Your task to perform on an android device: add a contact Image 0: 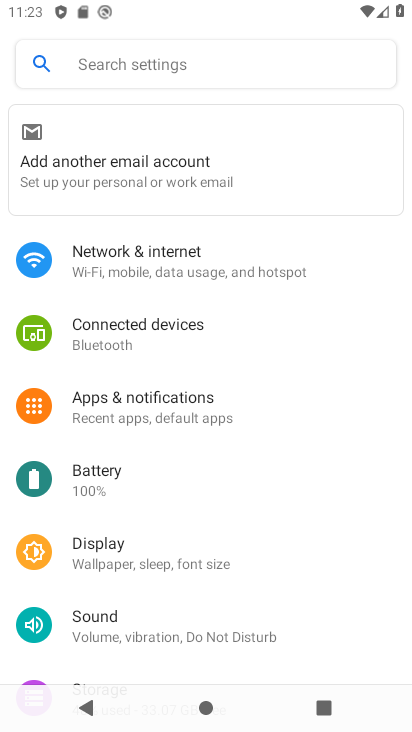
Step 0: press home button
Your task to perform on an android device: add a contact Image 1: 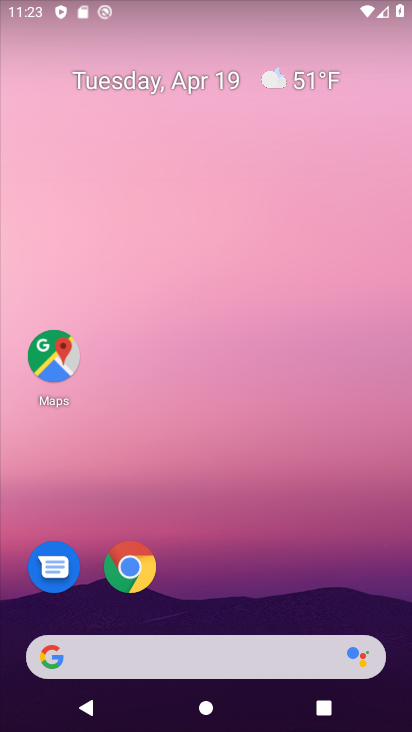
Step 1: drag from (209, 588) to (316, 0)
Your task to perform on an android device: add a contact Image 2: 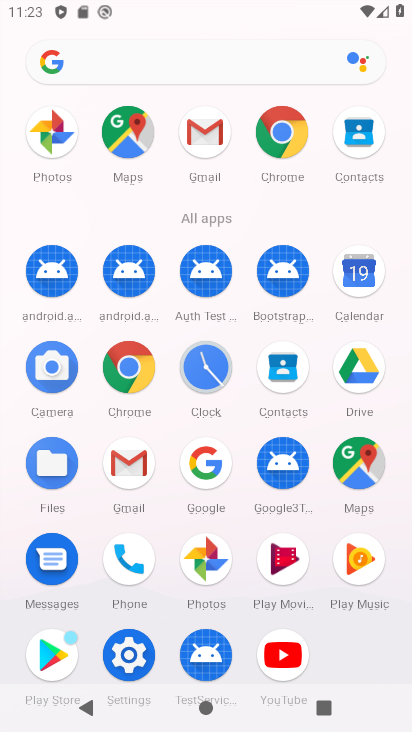
Step 2: click (284, 376)
Your task to perform on an android device: add a contact Image 3: 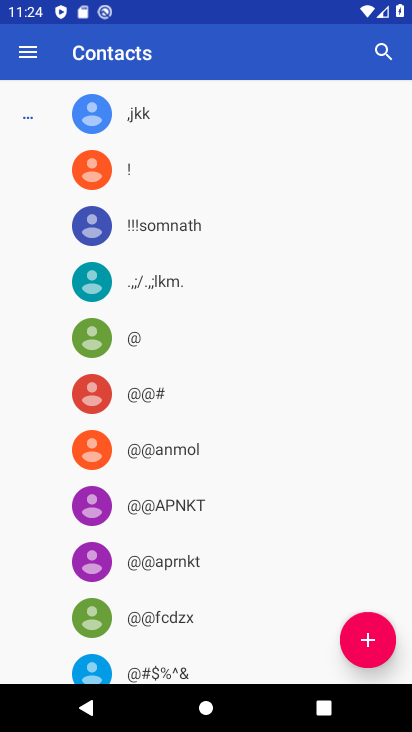
Step 3: click (364, 632)
Your task to perform on an android device: add a contact Image 4: 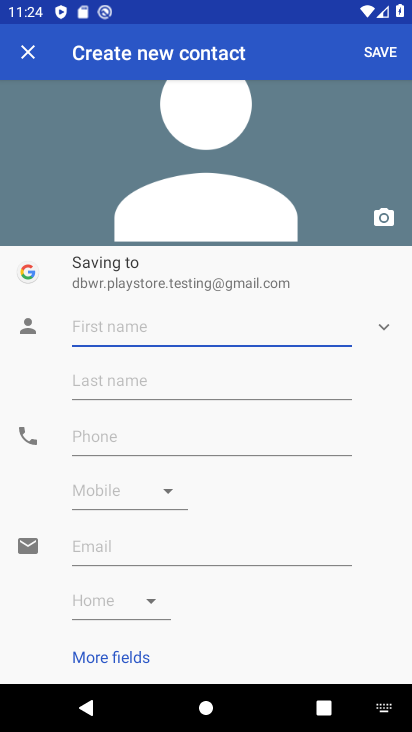
Step 4: type "avdulkeli"
Your task to perform on an android device: add a contact Image 5: 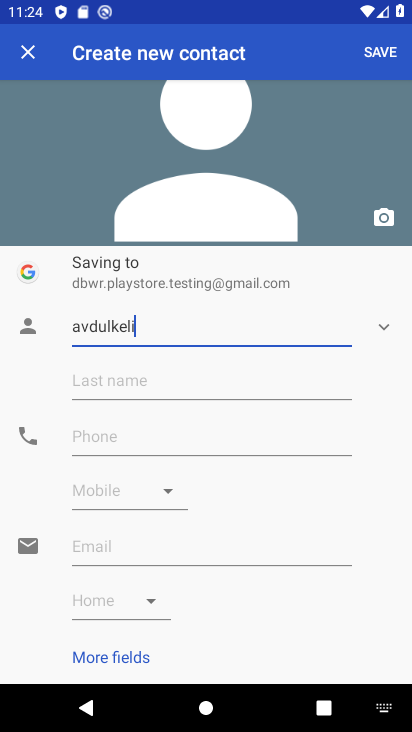
Step 5: click (383, 52)
Your task to perform on an android device: add a contact Image 6: 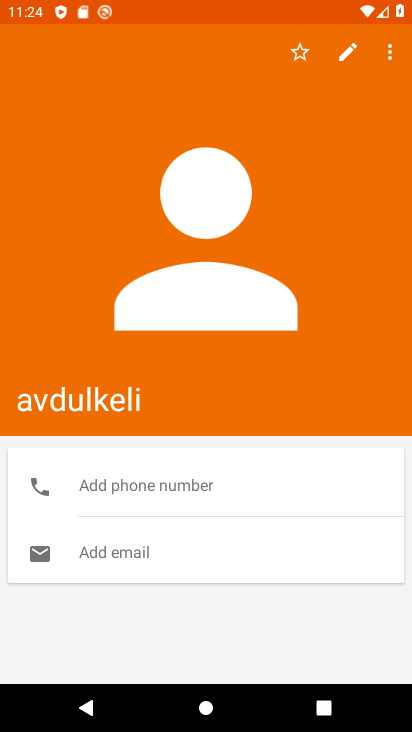
Step 6: task complete